Your task to perform on an android device: change the clock style Image 0: 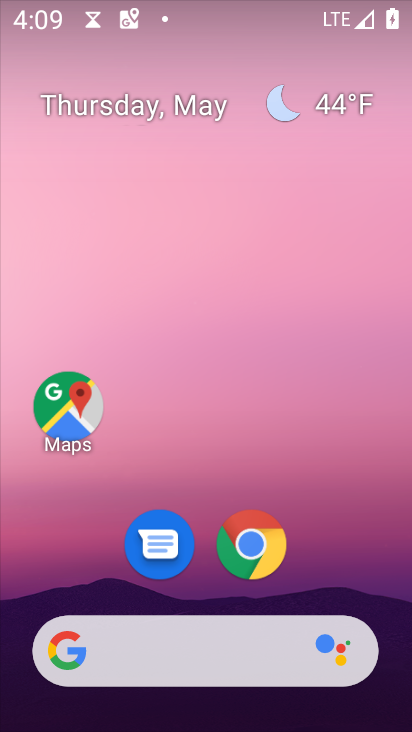
Step 0: press home button
Your task to perform on an android device: change the clock style Image 1: 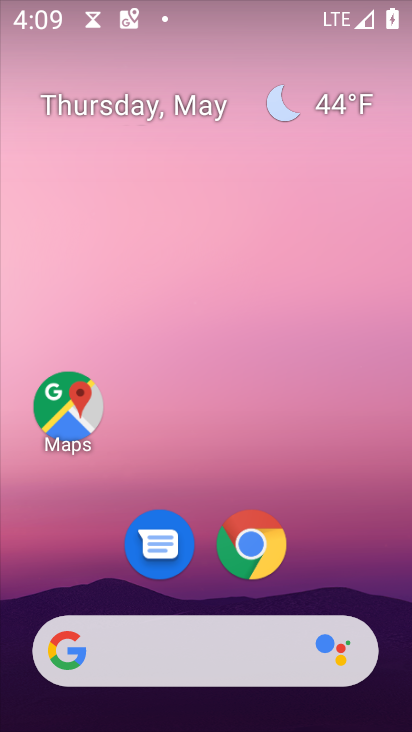
Step 1: drag from (313, 572) to (347, 59)
Your task to perform on an android device: change the clock style Image 2: 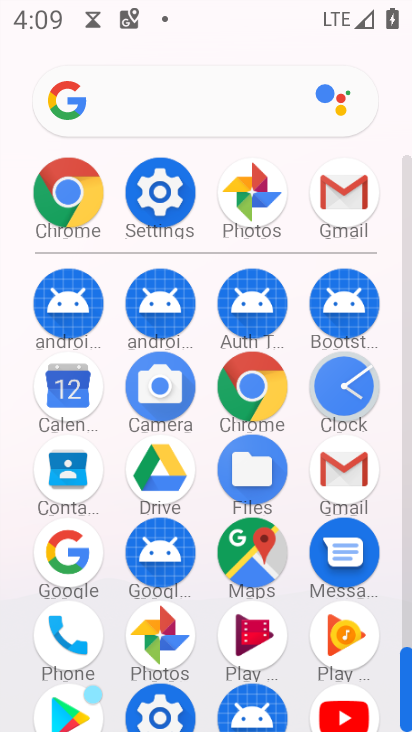
Step 2: click (360, 393)
Your task to perform on an android device: change the clock style Image 3: 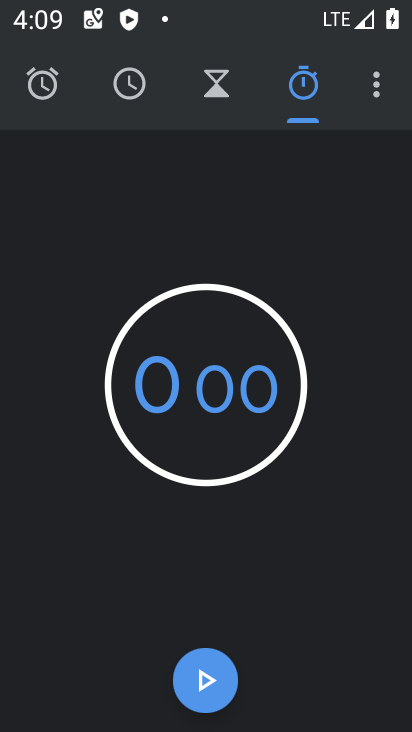
Step 3: click (375, 92)
Your task to perform on an android device: change the clock style Image 4: 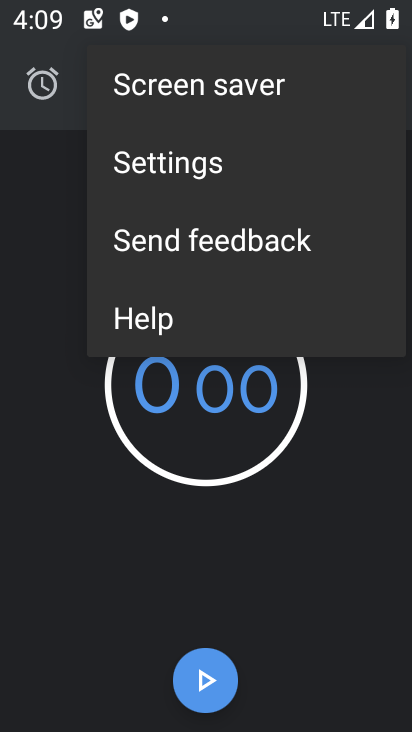
Step 4: click (282, 161)
Your task to perform on an android device: change the clock style Image 5: 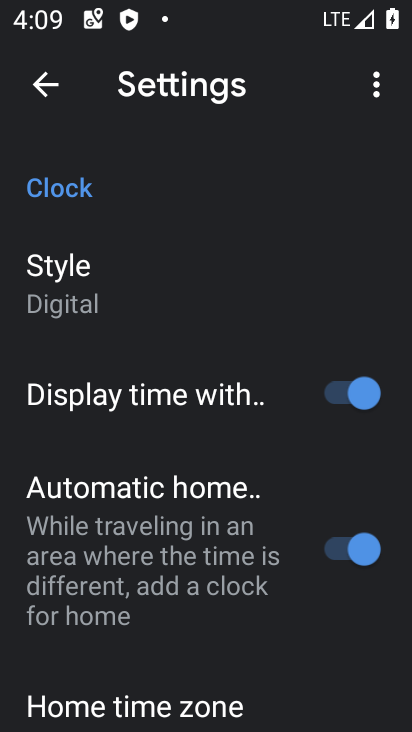
Step 5: click (219, 285)
Your task to perform on an android device: change the clock style Image 6: 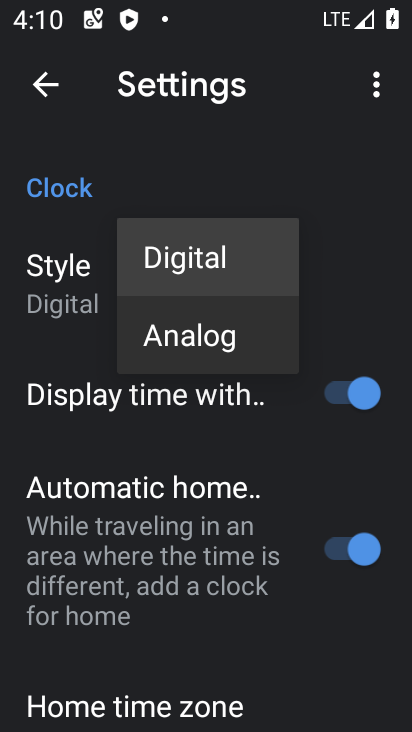
Step 6: click (192, 326)
Your task to perform on an android device: change the clock style Image 7: 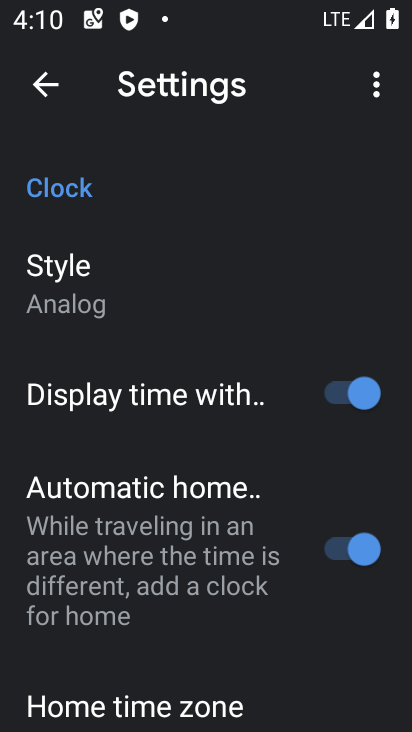
Step 7: task complete